Your task to perform on an android device: turn off sleep mode Image 0: 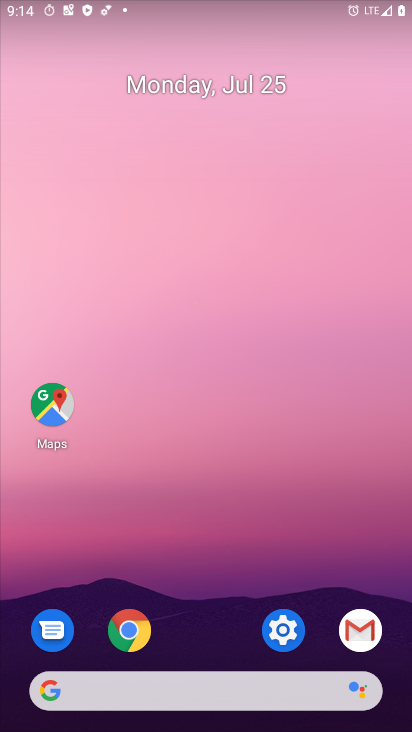
Step 0: click (285, 633)
Your task to perform on an android device: turn off sleep mode Image 1: 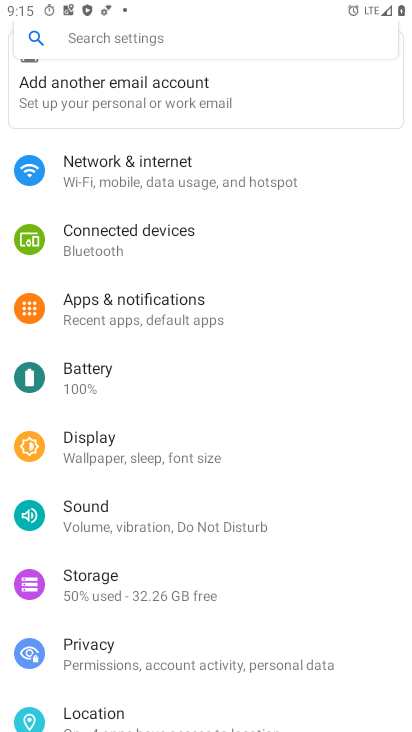
Step 1: click (149, 36)
Your task to perform on an android device: turn off sleep mode Image 2: 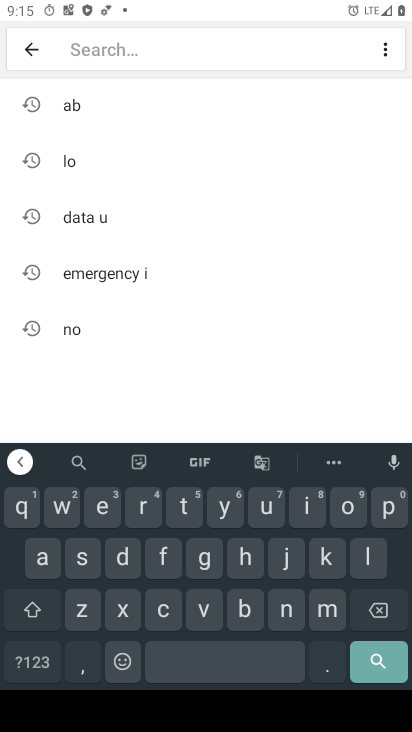
Step 2: click (78, 561)
Your task to perform on an android device: turn off sleep mode Image 3: 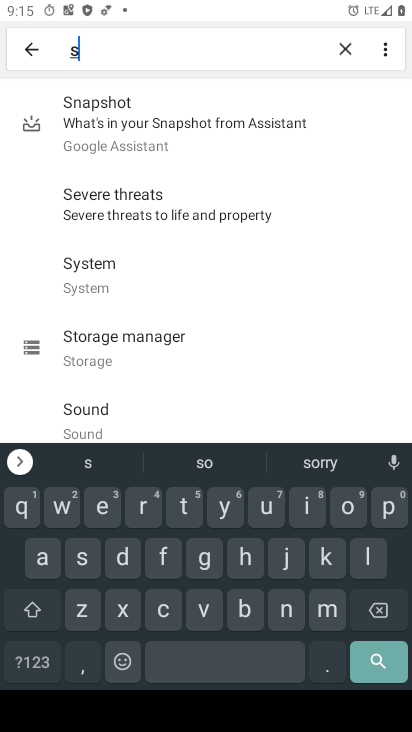
Step 3: click (367, 559)
Your task to perform on an android device: turn off sleep mode Image 4: 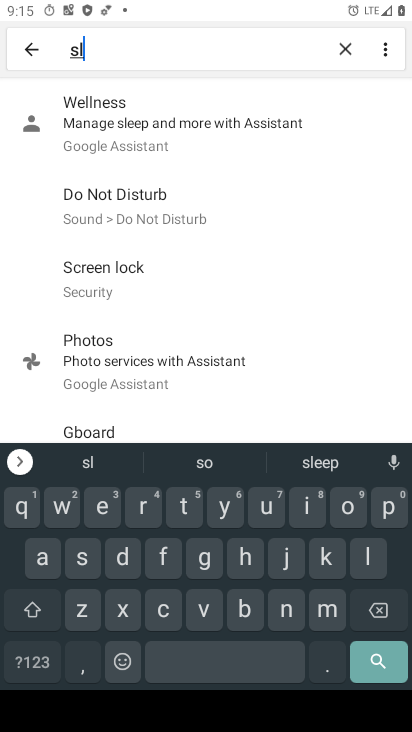
Step 4: click (108, 198)
Your task to perform on an android device: turn off sleep mode Image 5: 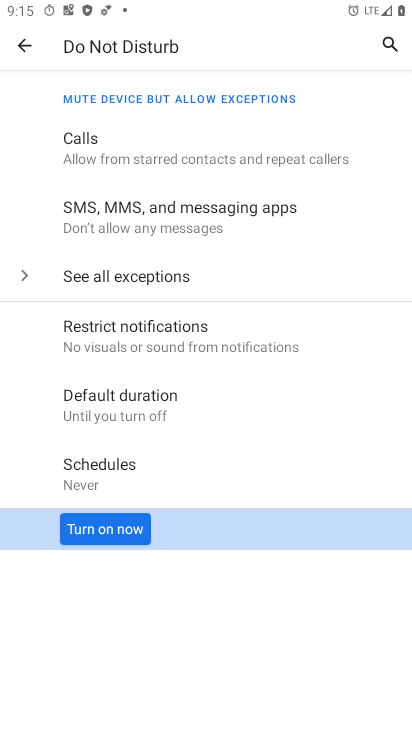
Step 5: click (108, 521)
Your task to perform on an android device: turn off sleep mode Image 6: 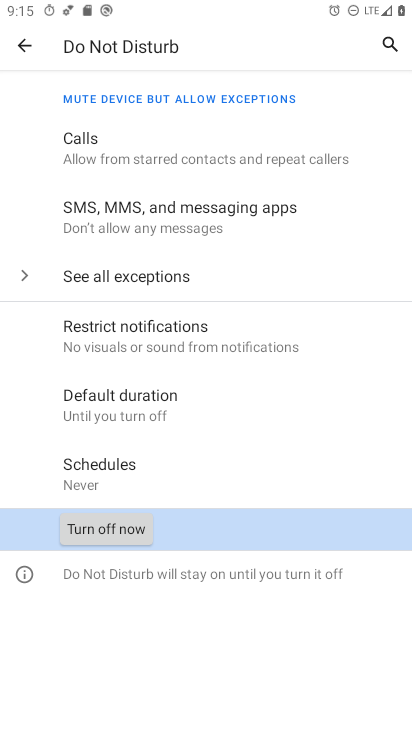
Step 6: click (98, 540)
Your task to perform on an android device: turn off sleep mode Image 7: 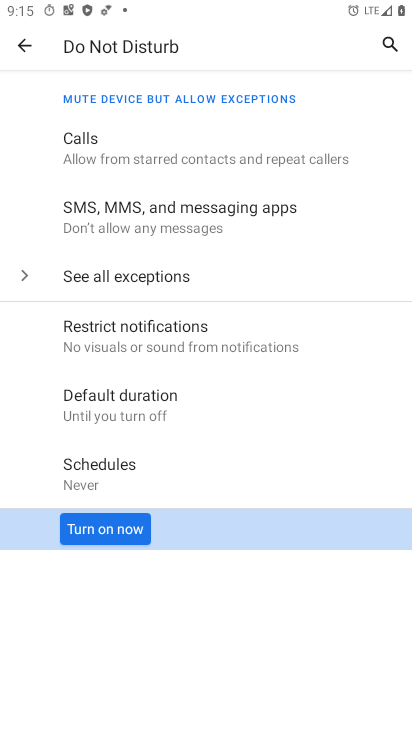
Step 7: task complete